Your task to perform on an android device: Go to eBay Image 0: 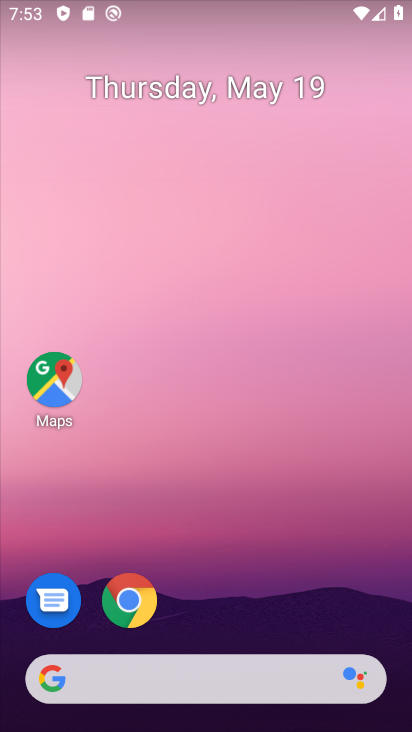
Step 0: click (133, 607)
Your task to perform on an android device: Go to eBay Image 1: 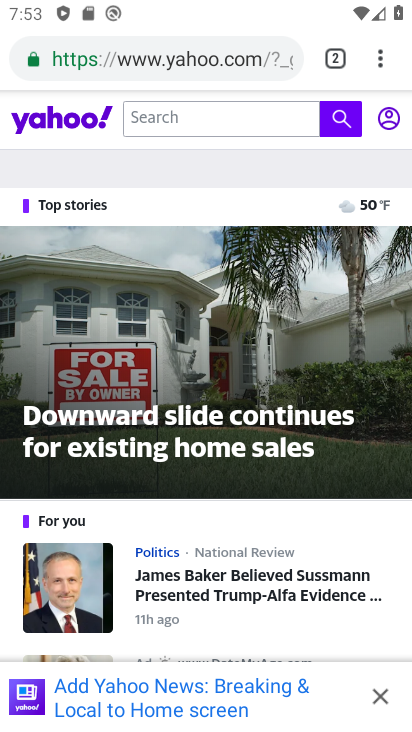
Step 1: click (128, 61)
Your task to perform on an android device: Go to eBay Image 2: 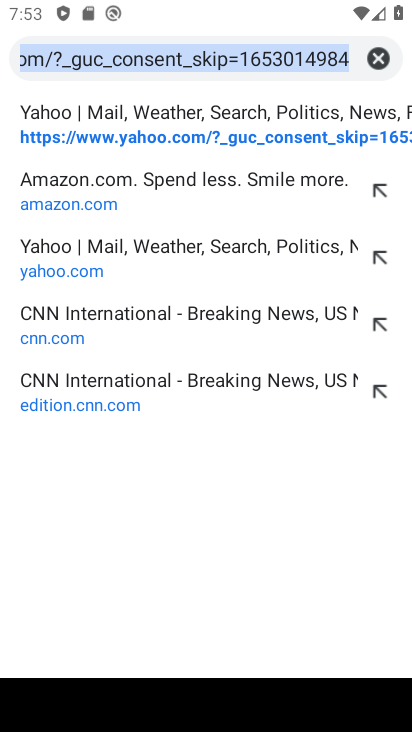
Step 2: click (377, 59)
Your task to perform on an android device: Go to eBay Image 3: 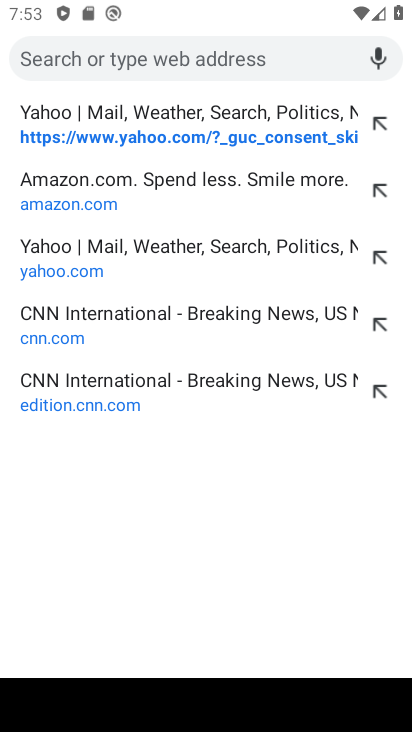
Step 3: click (91, 63)
Your task to perform on an android device: Go to eBay Image 4: 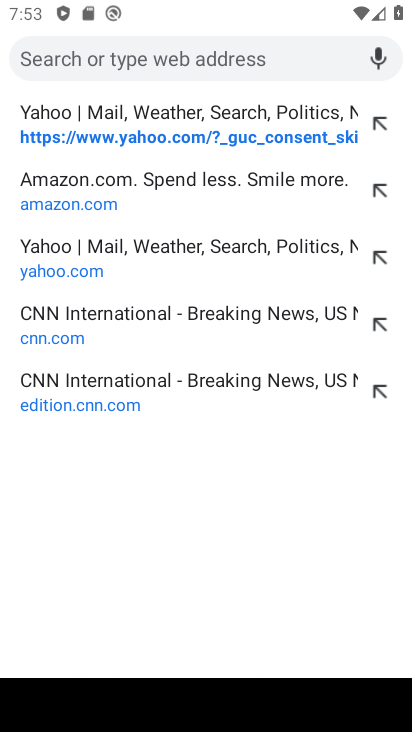
Step 4: type "ebay"
Your task to perform on an android device: Go to eBay Image 5: 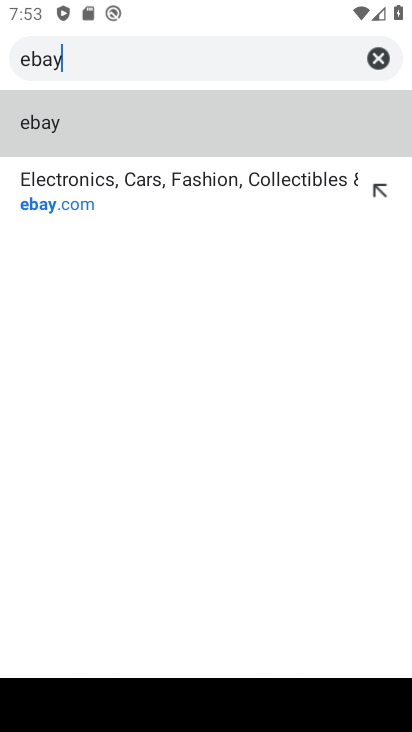
Step 5: click (39, 202)
Your task to perform on an android device: Go to eBay Image 6: 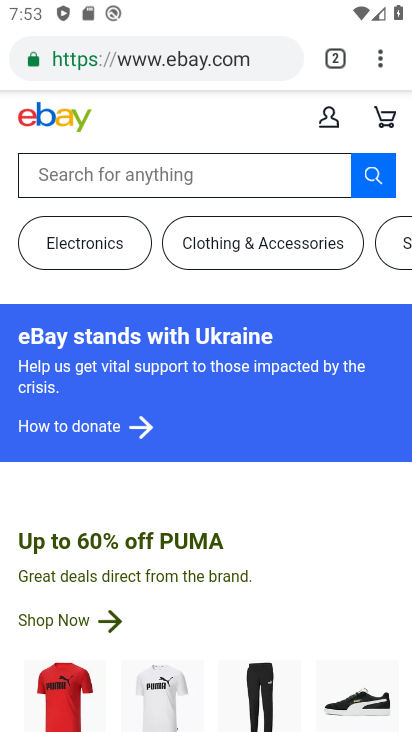
Step 6: task complete